Your task to perform on an android device: Search for sushi restaurants on Maps Image 0: 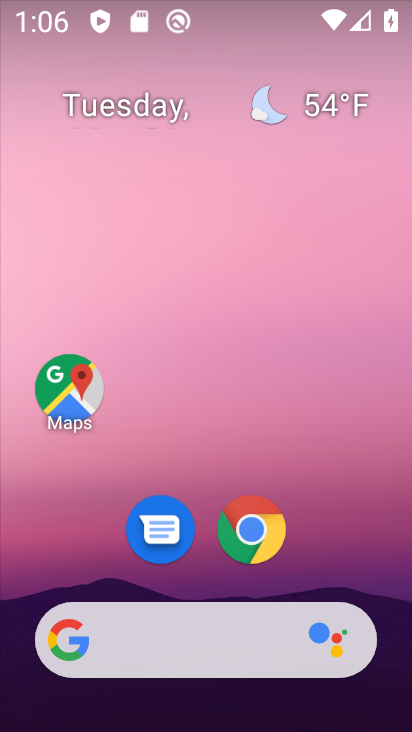
Step 0: click (71, 390)
Your task to perform on an android device: Search for sushi restaurants on Maps Image 1: 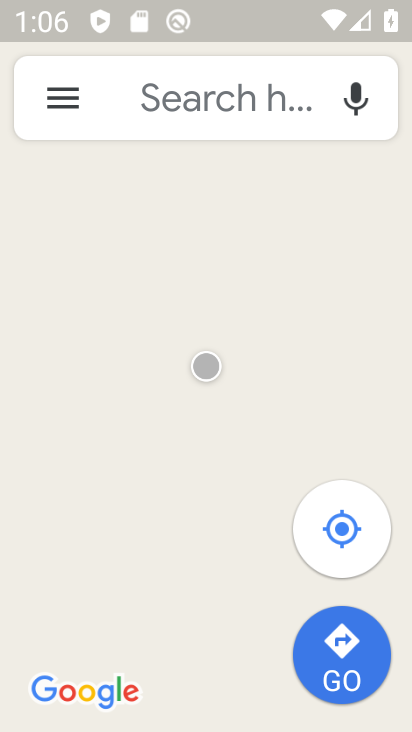
Step 1: click (208, 99)
Your task to perform on an android device: Search for sushi restaurants on Maps Image 2: 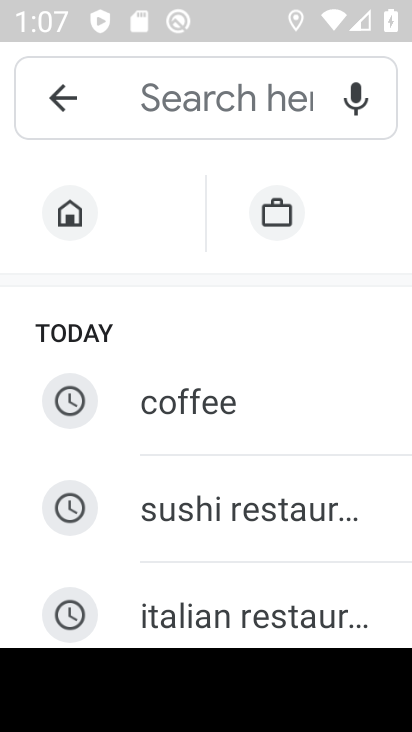
Step 2: type "sushi restaurants"
Your task to perform on an android device: Search for sushi restaurants on Maps Image 3: 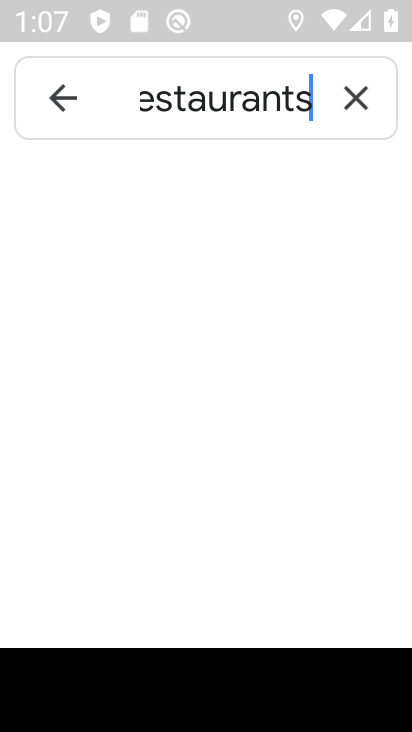
Step 3: type ""
Your task to perform on an android device: Search for sushi restaurants on Maps Image 4: 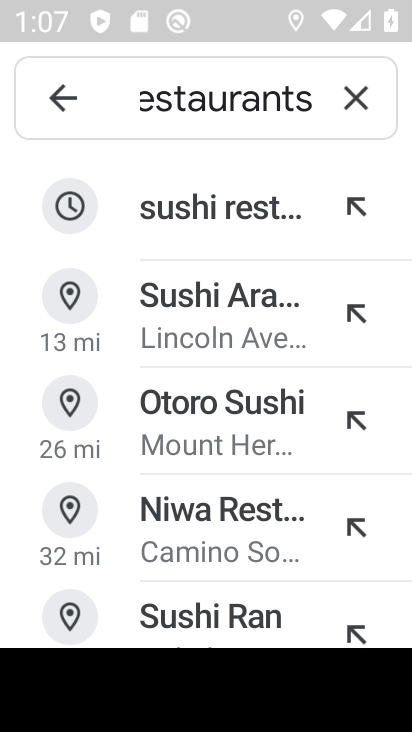
Step 4: click (199, 213)
Your task to perform on an android device: Search for sushi restaurants on Maps Image 5: 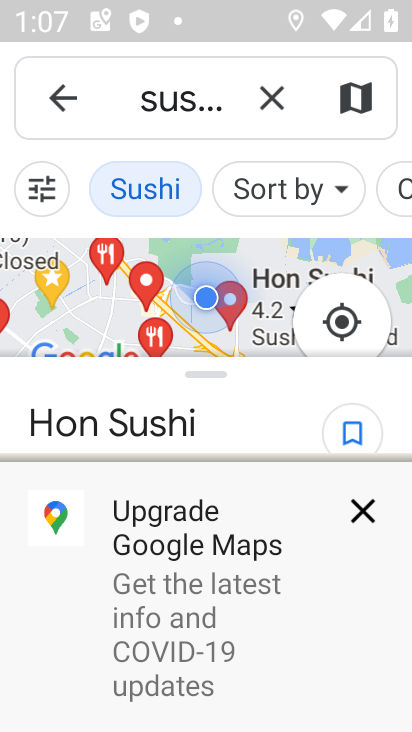
Step 5: click (364, 516)
Your task to perform on an android device: Search for sushi restaurants on Maps Image 6: 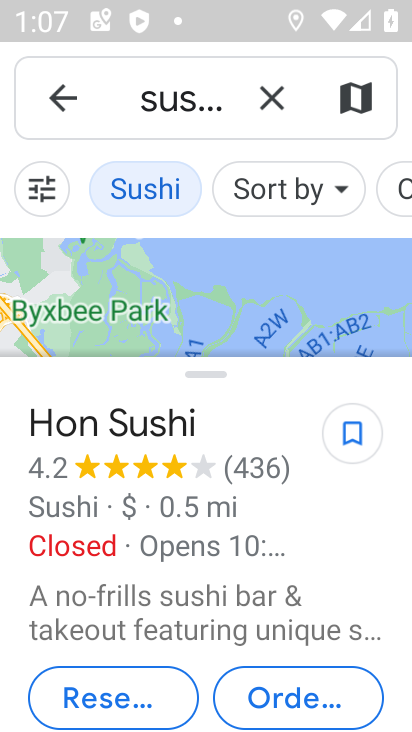
Step 6: task complete